Your task to perform on an android device: allow cookies in the chrome app Image 0: 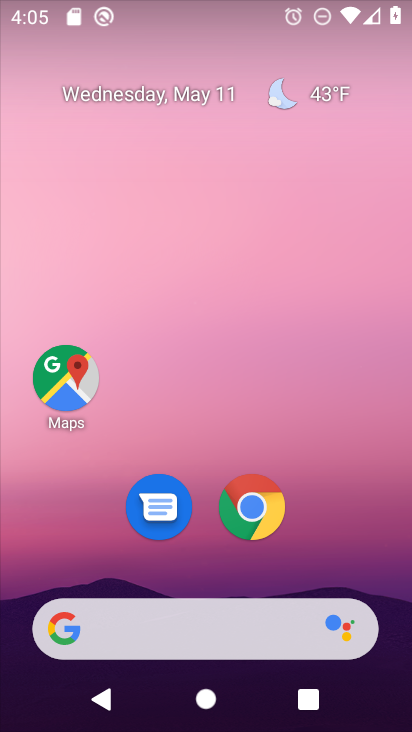
Step 0: click (250, 504)
Your task to perform on an android device: allow cookies in the chrome app Image 1: 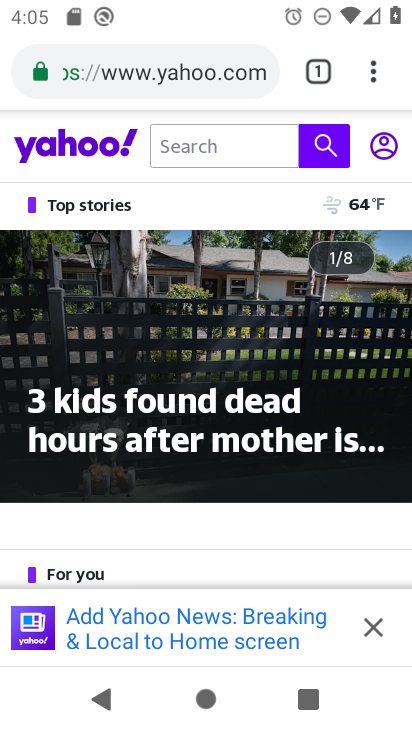
Step 1: click (369, 80)
Your task to perform on an android device: allow cookies in the chrome app Image 2: 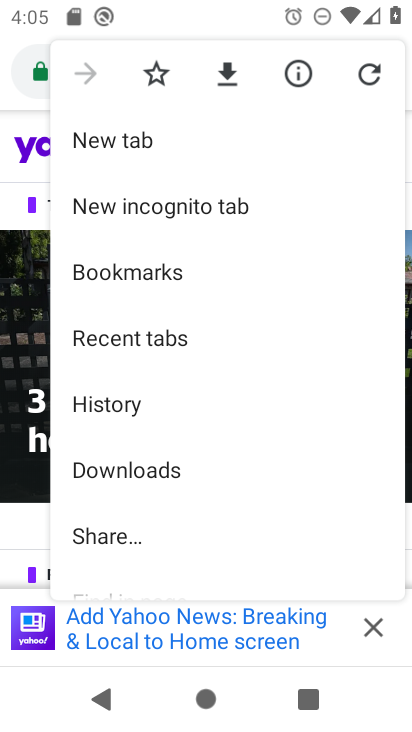
Step 2: drag from (209, 542) to (276, 166)
Your task to perform on an android device: allow cookies in the chrome app Image 3: 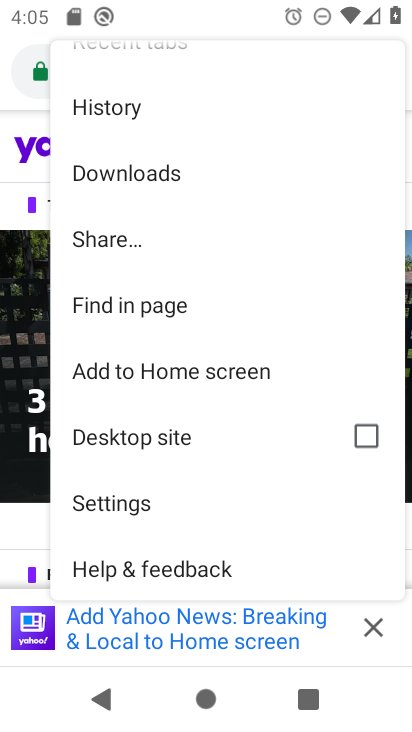
Step 3: click (117, 499)
Your task to perform on an android device: allow cookies in the chrome app Image 4: 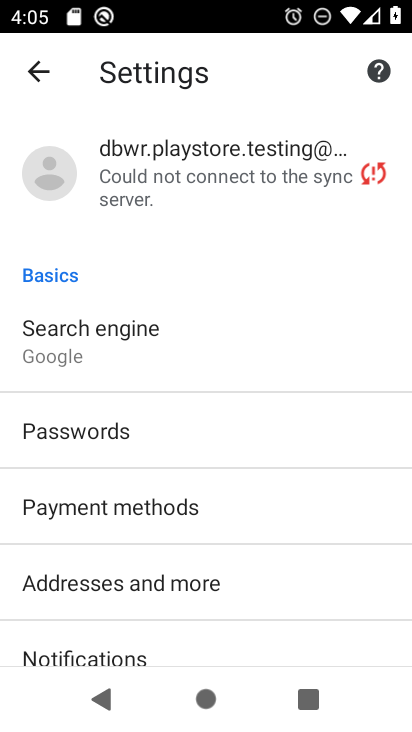
Step 4: drag from (263, 628) to (272, 276)
Your task to perform on an android device: allow cookies in the chrome app Image 5: 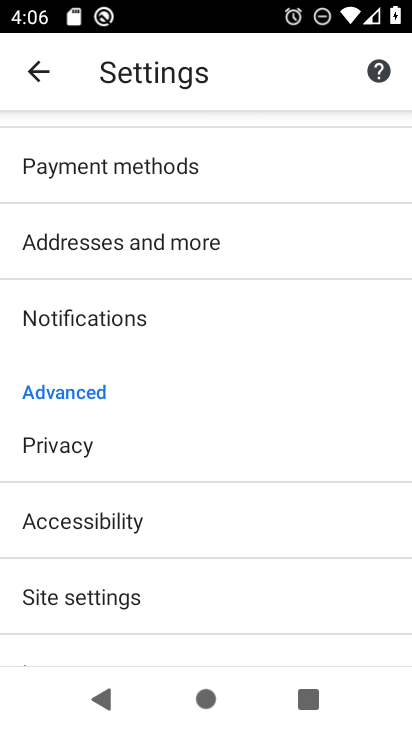
Step 5: drag from (223, 584) to (266, 190)
Your task to perform on an android device: allow cookies in the chrome app Image 6: 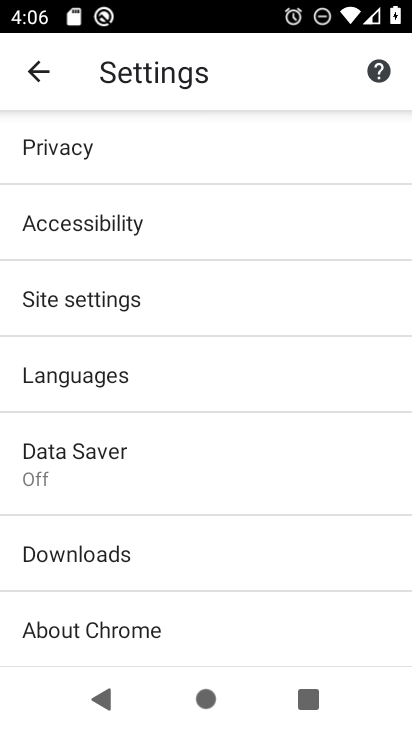
Step 6: click (71, 306)
Your task to perform on an android device: allow cookies in the chrome app Image 7: 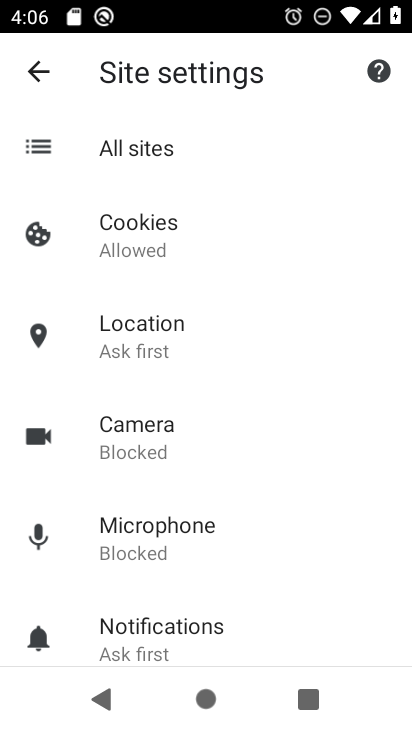
Step 7: click (129, 223)
Your task to perform on an android device: allow cookies in the chrome app Image 8: 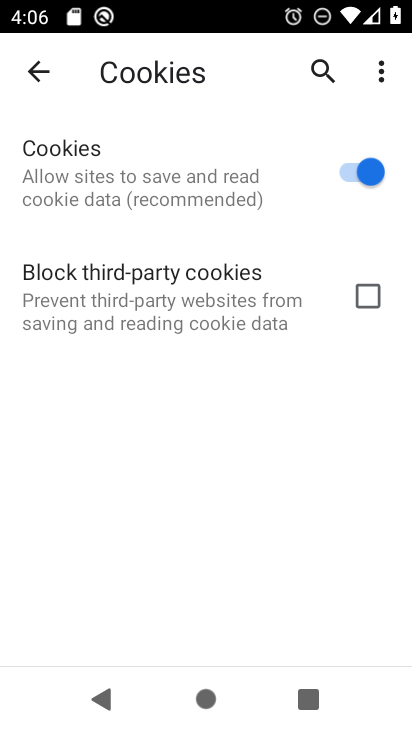
Step 8: task complete